Your task to perform on an android device: Go to Google maps Image 0: 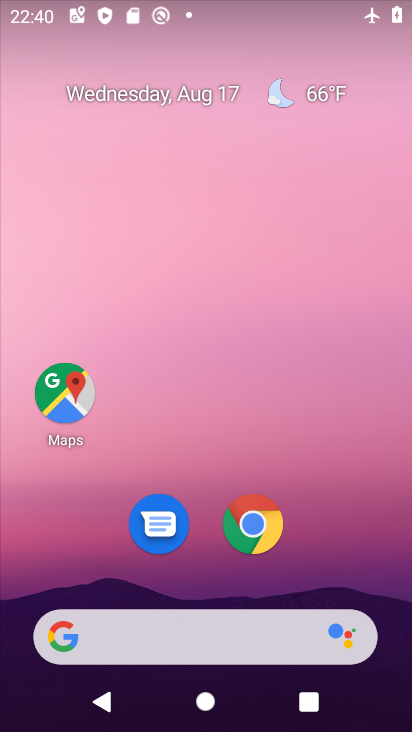
Step 0: click (66, 400)
Your task to perform on an android device: Go to Google maps Image 1: 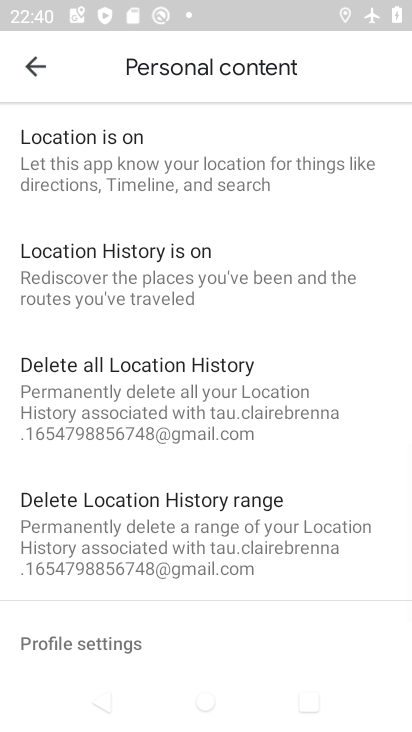
Step 1: click (31, 66)
Your task to perform on an android device: Go to Google maps Image 2: 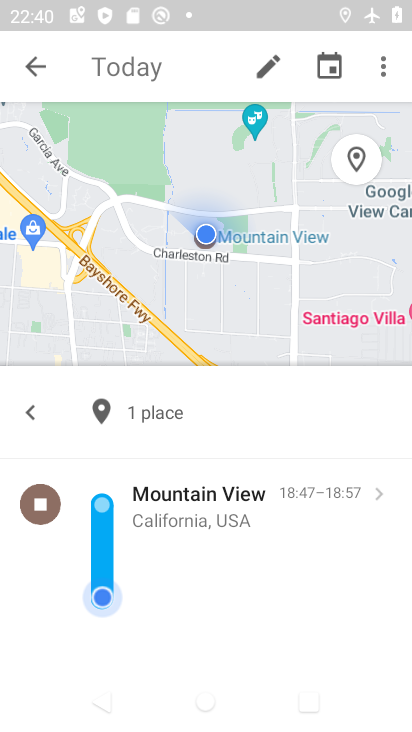
Step 2: click (30, 58)
Your task to perform on an android device: Go to Google maps Image 3: 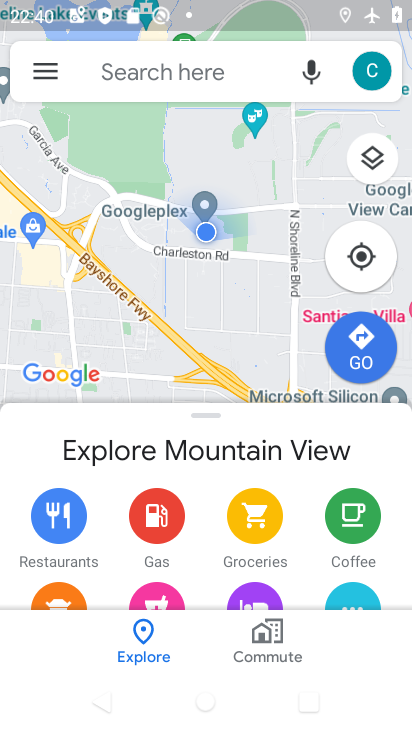
Step 3: task complete